Your task to perform on an android device: Toggle the flashlight Image 0: 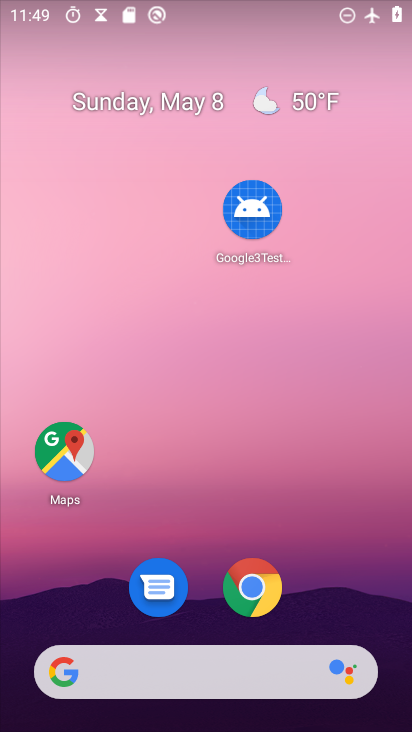
Step 0: drag from (347, 514) to (129, 82)
Your task to perform on an android device: Toggle the flashlight Image 1: 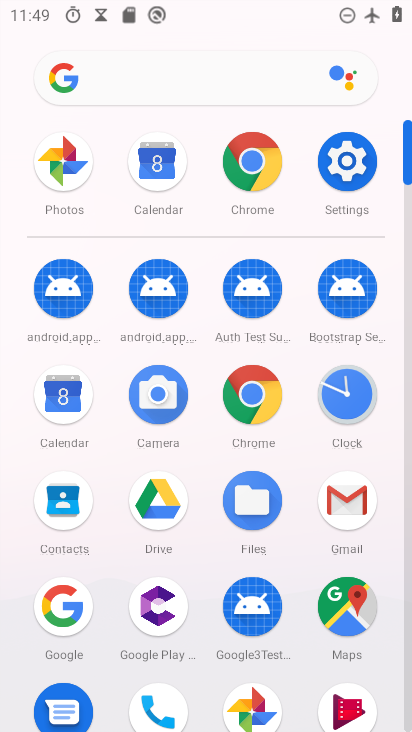
Step 1: click (350, 167)
Your task to perform on an android device: Toggle the flashlight Image 2: 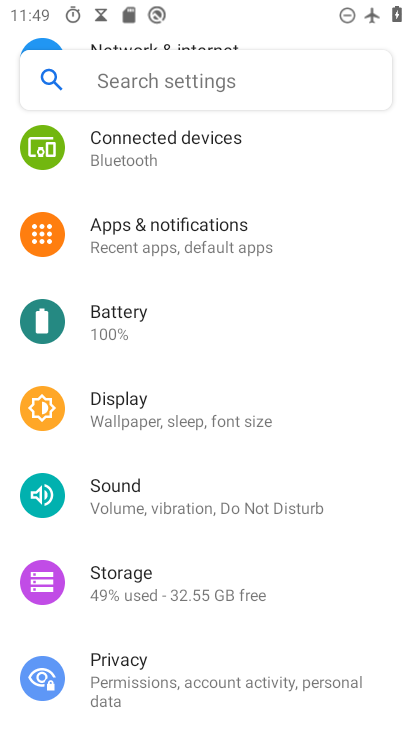
Step 2: drag from (177, 199) to (188, 541)
Your task to perform on an android device: Toggle the flashlight Image 3: 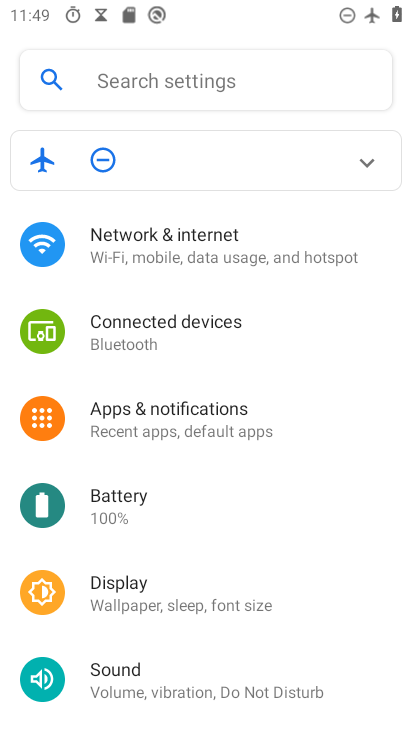
Step 3: click (175, 87)
Your task to perform on an android device: Toggle the flashlight Image 4: 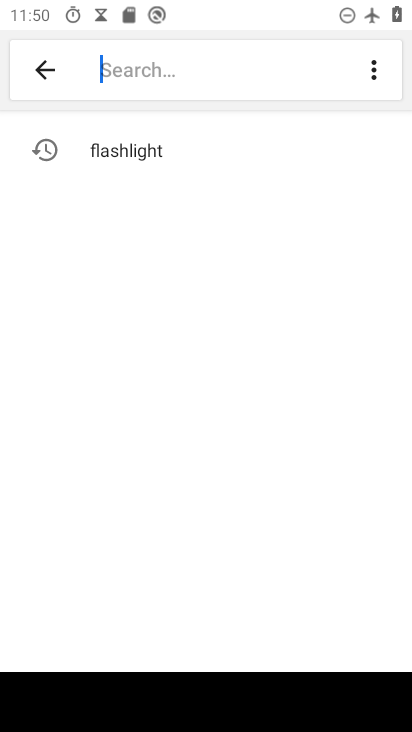
Step 4: click (198, 141)
Your task to perform on an android device: Toggle the flashlight Image 5: 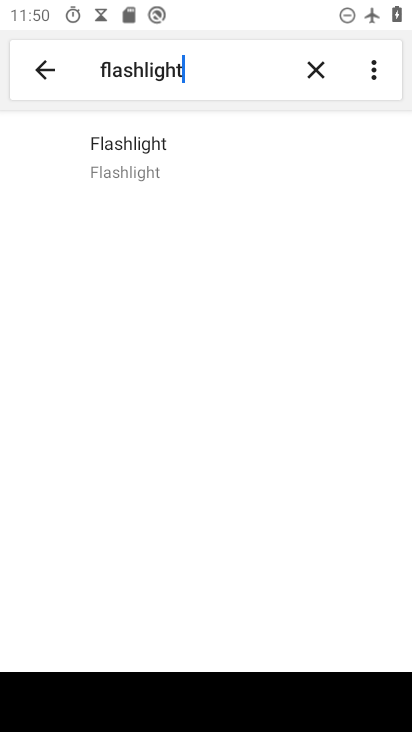
Step 5: click (179, 164)
Your task to perform on an android device: Toggle the flashlight Image 6: 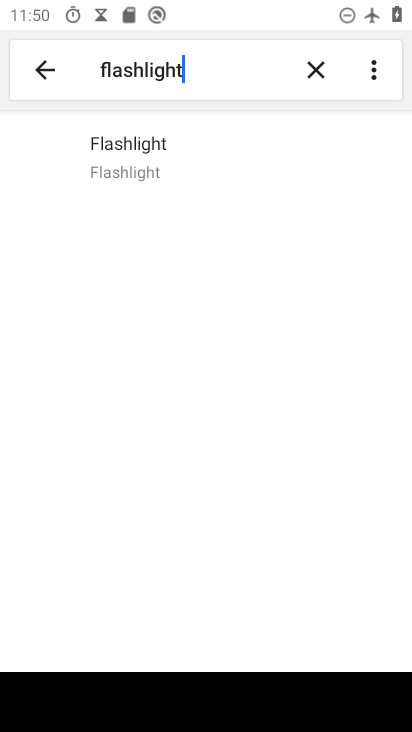
Step 6: click (179, 164)
Your task to perform on an android device: Toggle the flashlight Image 7: 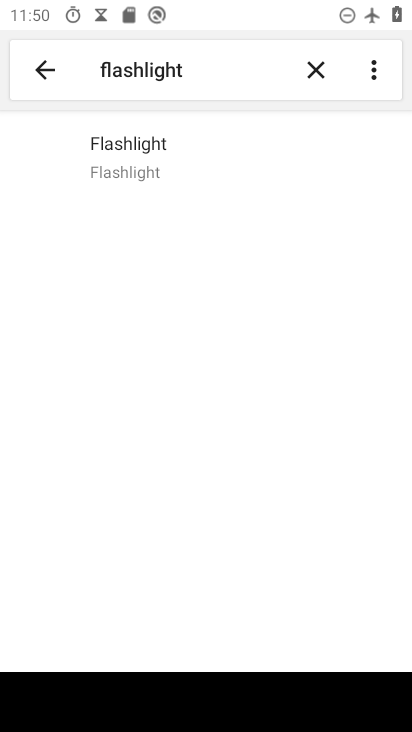
Step 7: task complete